Your task to perform on an android device: Go to Maps Image 0: 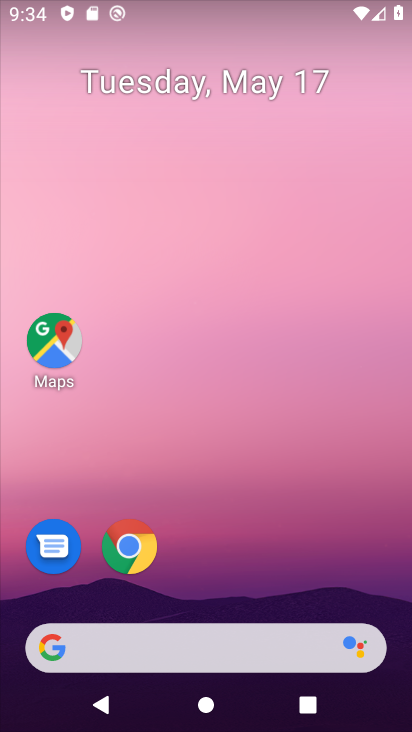
Step 0: click (44, 336)
Your task to perform on an android device: Go to Maps Image 1: 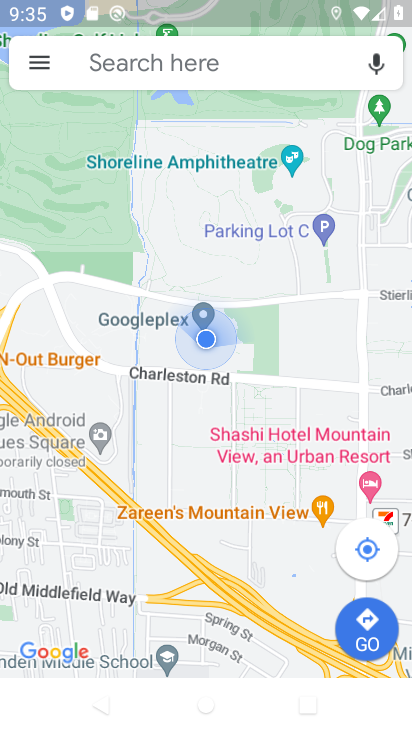
Step 1: task complete